Your task to perform on an android device: Show me popular games on the Play Store Image 0: 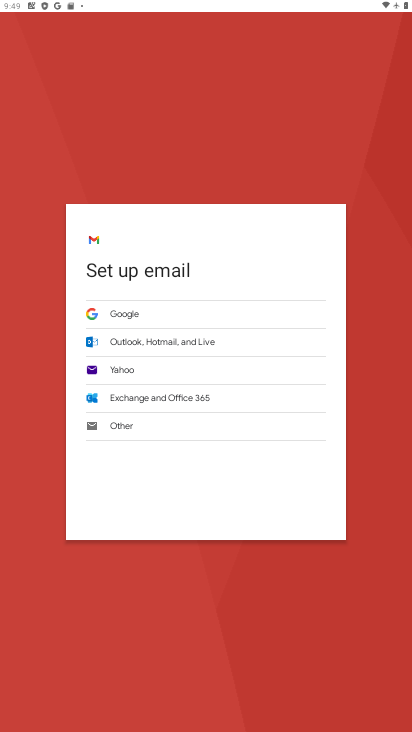
Step 0: task complete